Your task to perform on an android device: open a bookmark in the chrome app Image 0: 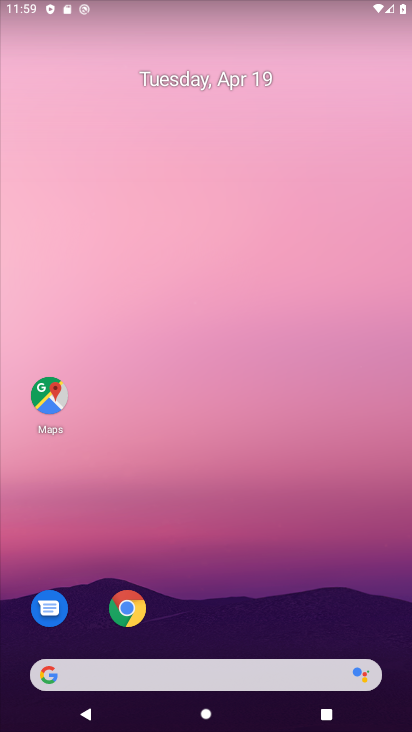
Step 0: click (129, 610)
Your task to perform on an android device: open a bookmark in the chrome app Image 1: 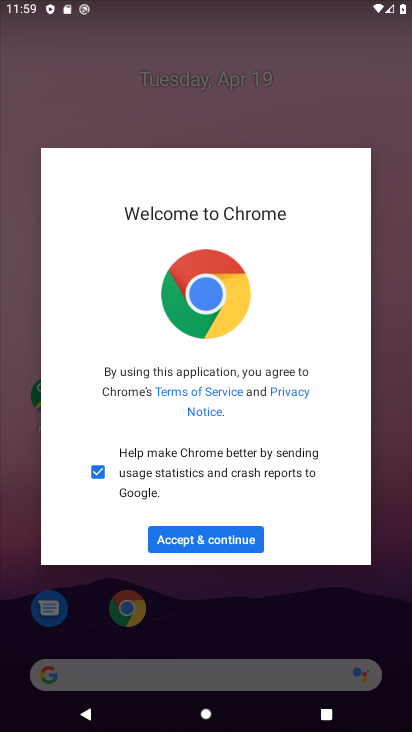
Step 1: click (228, 541)
Your task to perform on an android device: open a bookmark in the chrome app Image 2: 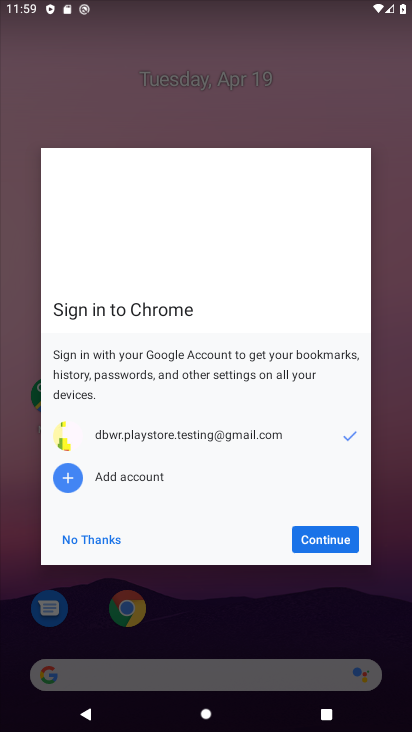
Step 2: click (307, 544)
Your task to perform on an android device: open a bookmark in the chrome app Image 3: 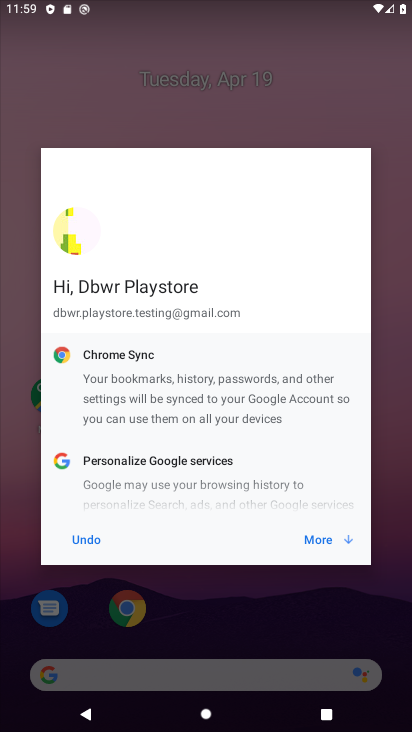
Step 3: click (311, 537)
Your task to perform on an android device: open a bookmark in the chrome app Image 4: 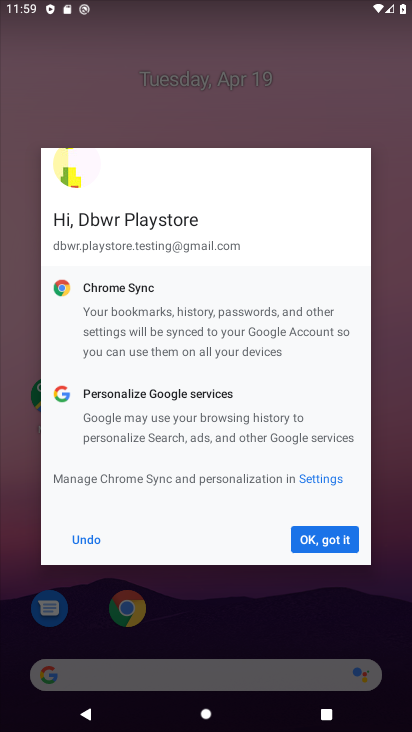
Step 4: click (311, 537)
Your task to perform on an android device: open a bookmark in the chrome app Image 5: 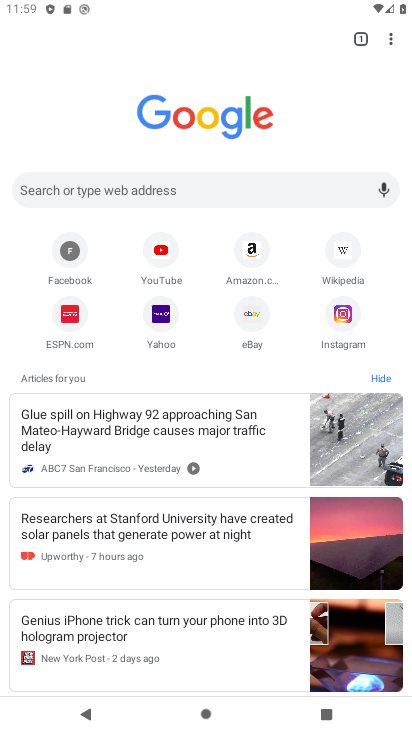
Step 5: click (394, 37)
Your task to perform on an android device: open a bookmark in the chrome app Image 6: 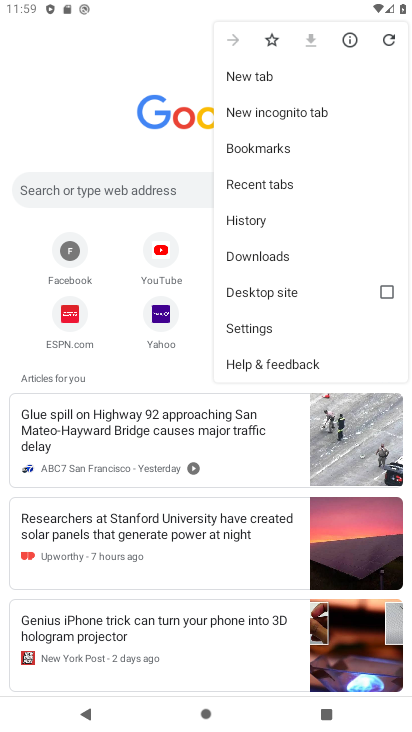
Step 6: click (286, 148)
Your task to perform on an android device: open a bookmark in the chrome app Image 7: 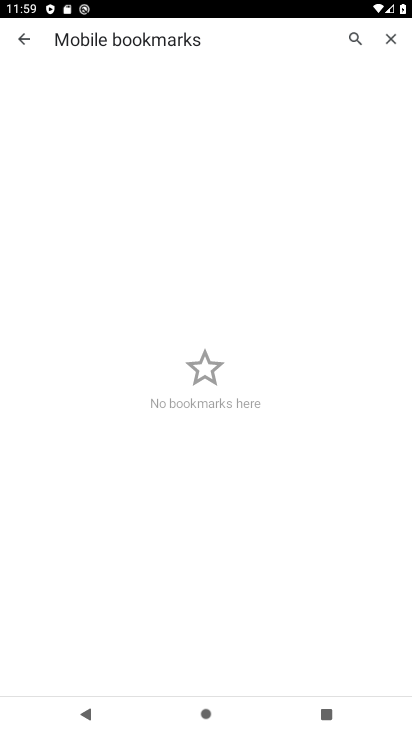
Step 7: task complete